Your task to perform on an android device: Open my contact list Image 0: 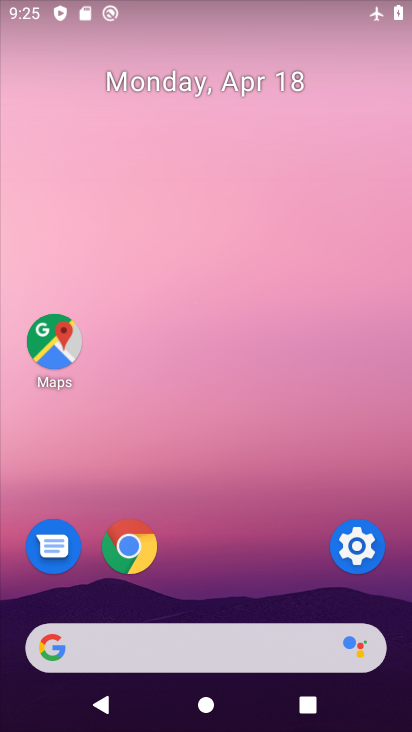
Step 0: drag from (241, 442) to (266, 259)
Your task to perform on an android device: Open my contact list Image 1: 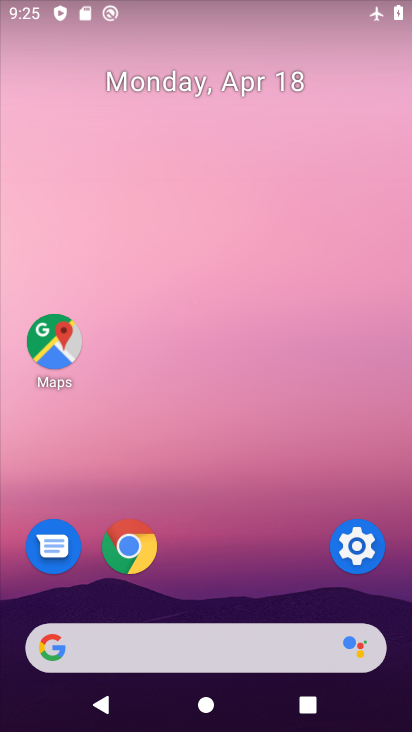
Step 1: drag from (233, 479) to (268, 97)
Your task to perform on an android device: Open my contact list Image 2: 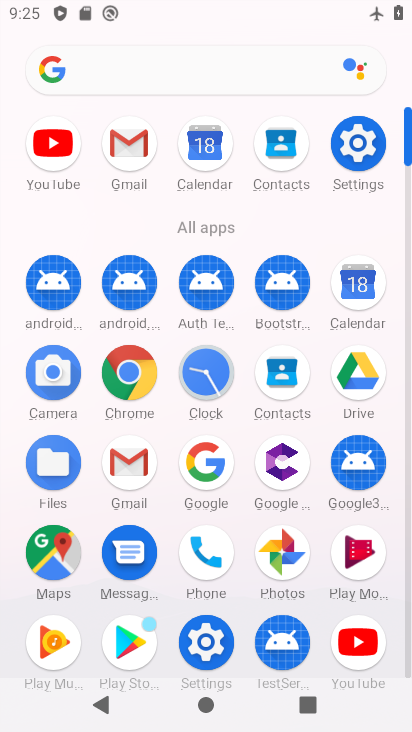
Step 2: click (287, 371)
Your task to perform on an android device: Open my contact list Image 3: 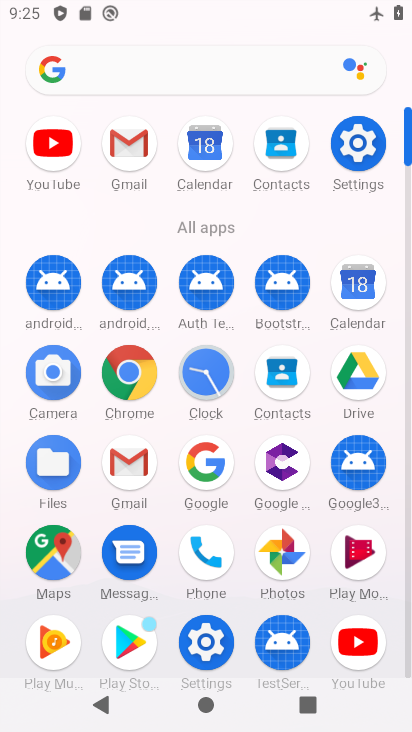
Step 3: click (287, 371)
Your task to perform on an android device: Open my contact list Image 4: 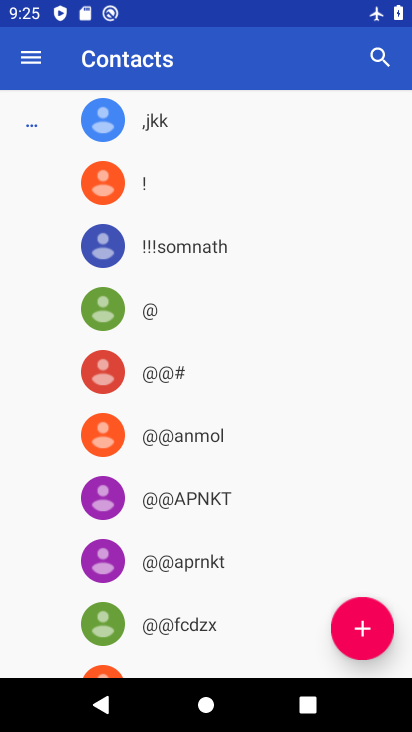
Step 4: task complete